Your task to perform on an android device: open a bookmark in the chrome app Image 0: 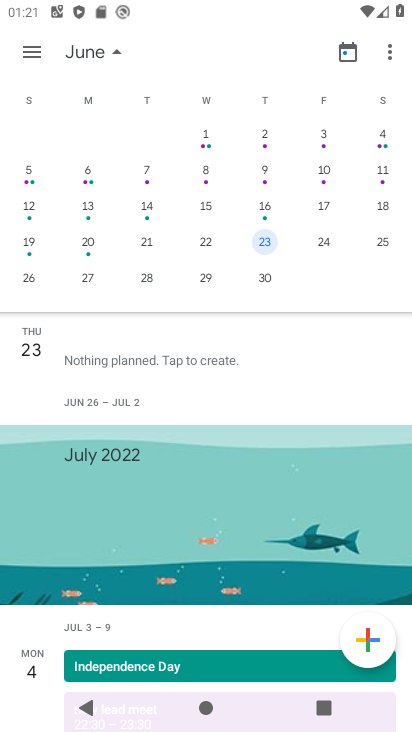
Step 0: press home button
Your task to perform on an android device: open a bookmark in the chrome app Image 1: 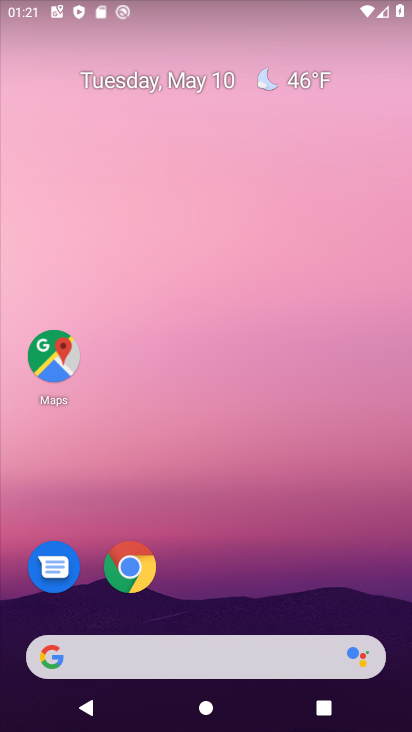
Step 1: click (124, 582)
Your task to perform on an android device: open a bookmark in the chrome app Image 2: 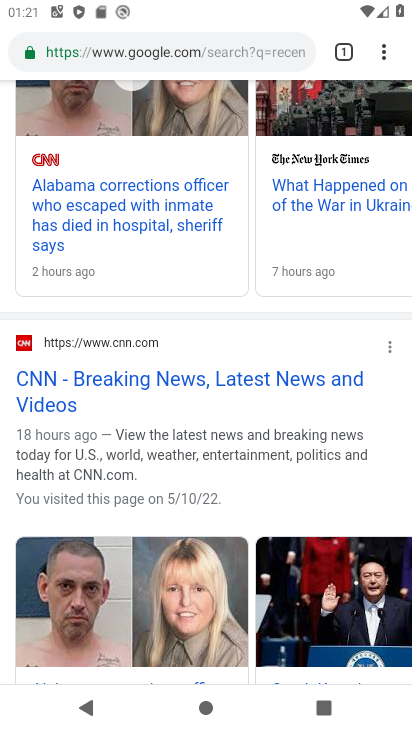
Step 2: drag from (389, 56) to (238, 205)
Your task to perform on an android device: open a bookmark in the chrome app Image 3: 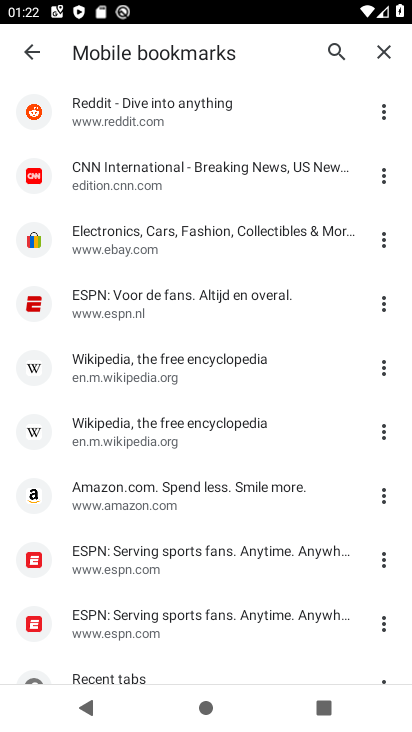
Step 3: click (165, 431)
Your task to perform on an android device: open a bookmark in the chrome app Image 4: 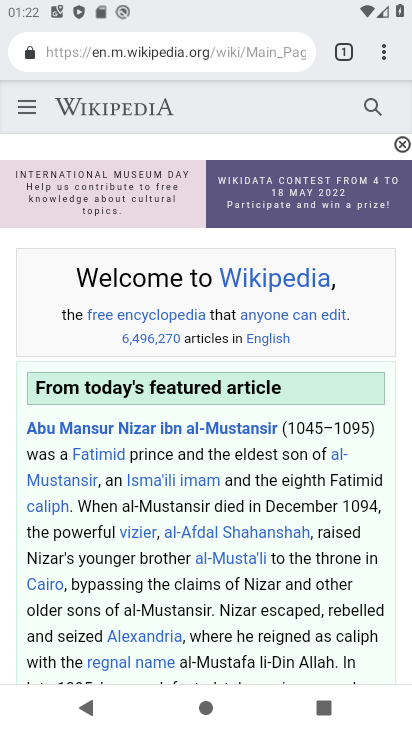
Step 4: task complete